Your task to perform on an android device: turn on sleep mode Image 0: 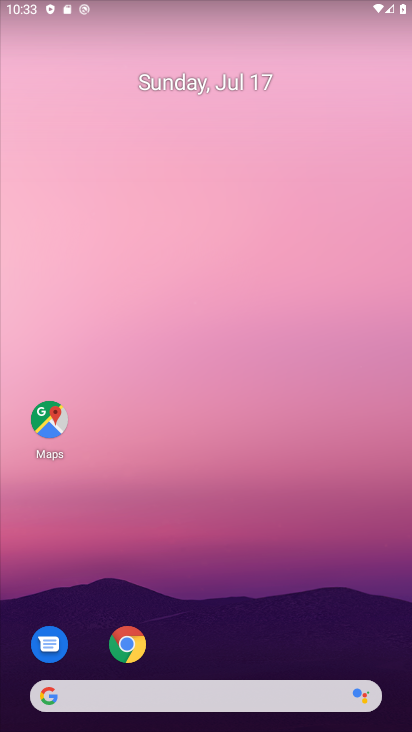
Step 0: drag from (240, 607) to (261, 59)
Your task to perform on an android device: turn on sleep mode Image 1: 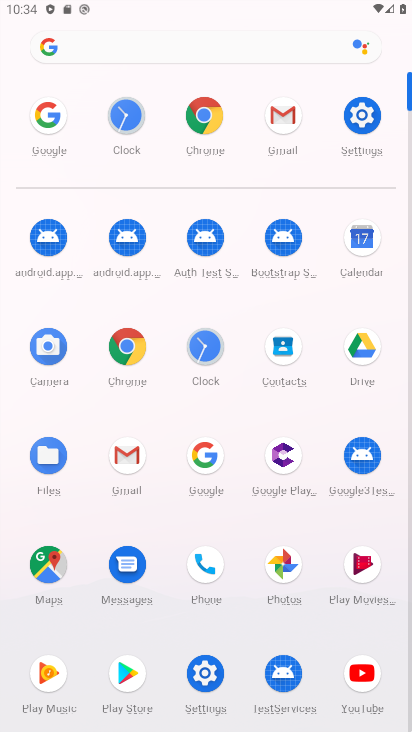
Step 1: click (359, 121)
Your task to perform on an android device: turn on sleep mode Image 2: 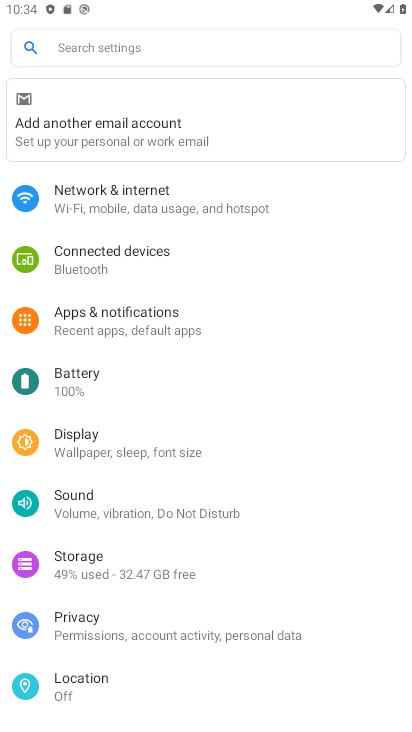
Step 2: click (130, 446)
Your task to perform on an android device: turn on sleep mode Image 3: 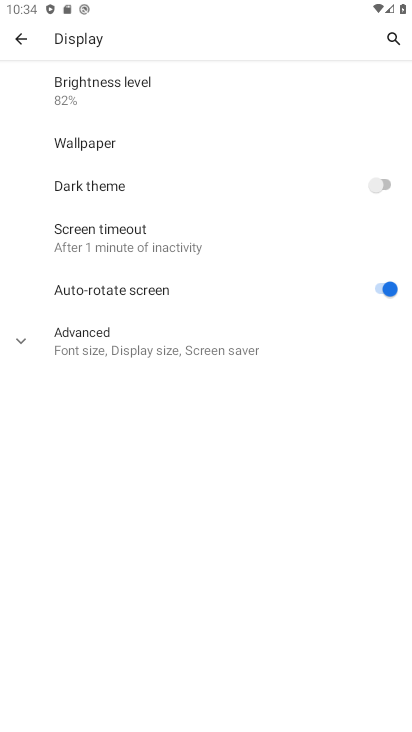
Step 3: click (95, 252)
Your task to perform on an android device: turn on sleep mode Image 4: 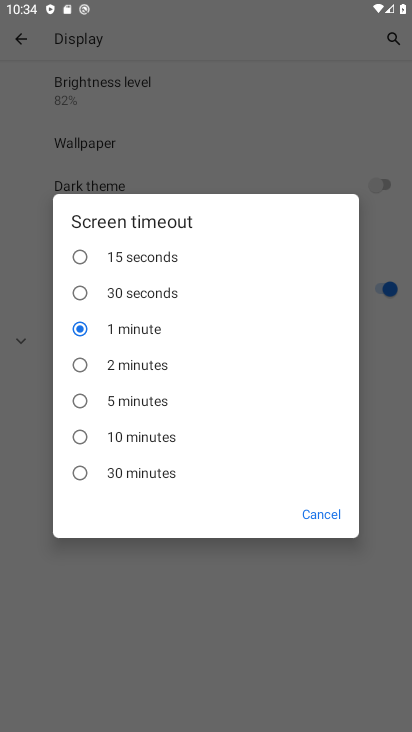
Step 4: task complete